Your task to perform on an android device: Is it going to rain this weekend? Image 0: 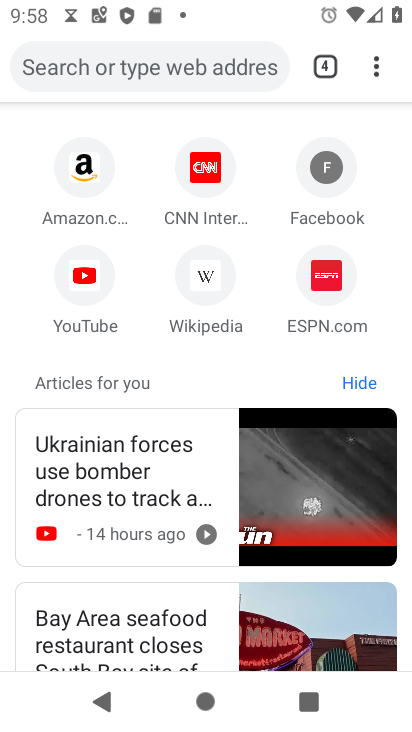
Step 0: press home button
Your task to perform on an android device: Is it going to rain this weekend? Image 1: 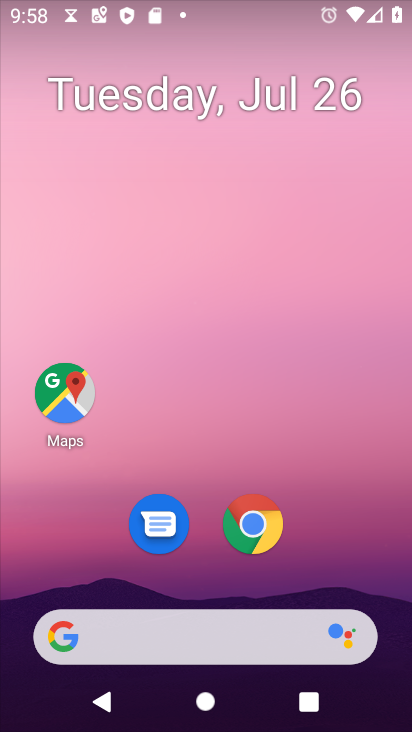
Step 1: click (164, 641)
Your task to perform on an android device: Is it going to rain this weekend? Image 2: 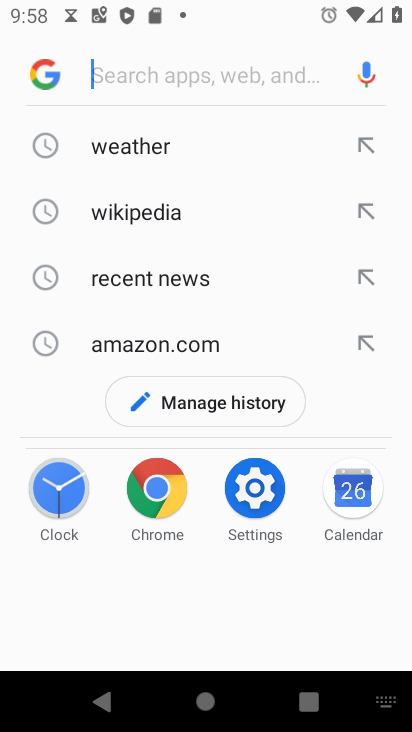
Step 2: click (155, 142)
Your task to perform on an android device: Is it going to rain this weekend? Image 3: 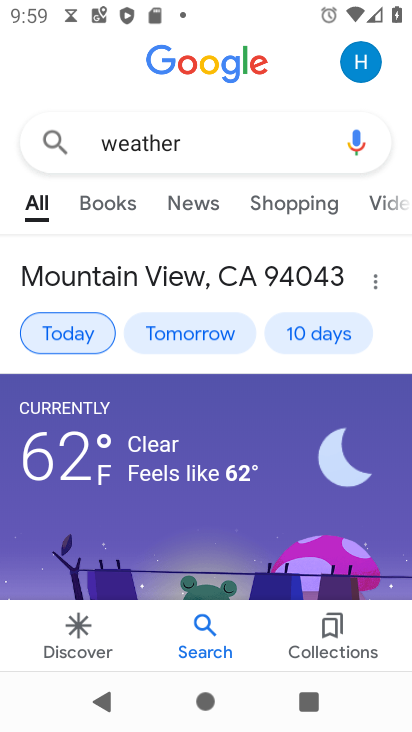
Step 3: click (320, 335)
Your task to perform on an android device: Is it going to rain this weekend? Image 4: 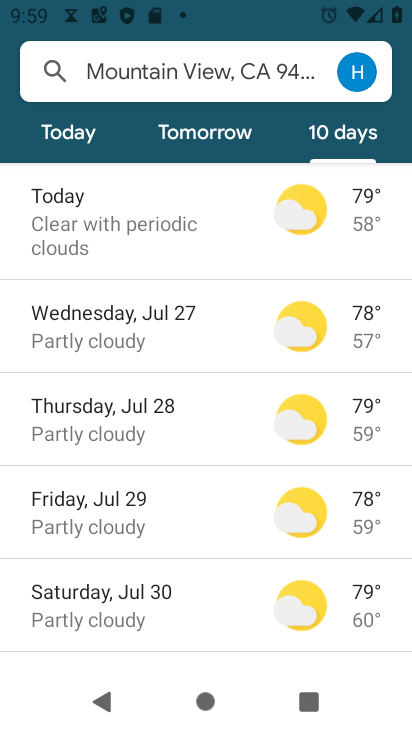
Step 4: drag from (143, 550) to (340, 175)
Your task to perform on an android device: Is it going to rain this weekend? Image 5: 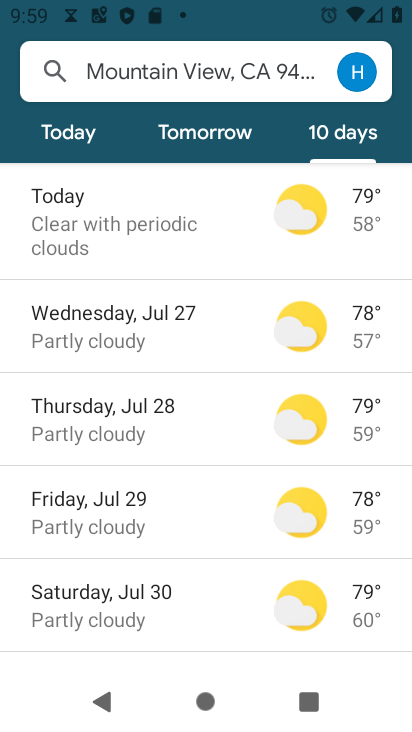
Step 5: drag from (238, 432) to (228, 181)
Your task to perform on an android device: Is it going to rain this weekend? Image 6: 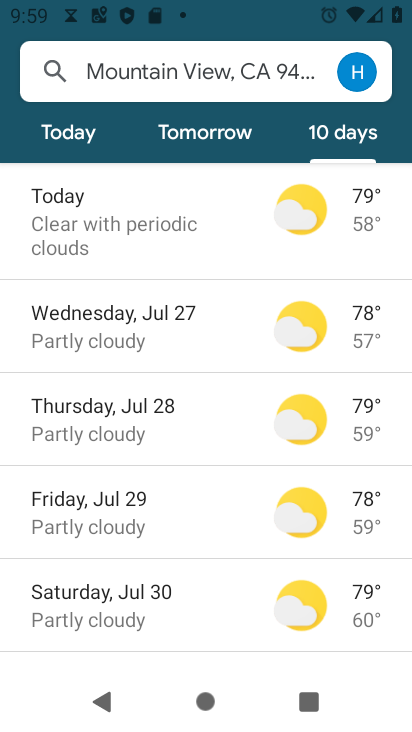
Step 6: click (126, 601)
Your task to perform on an android device: Is it going to rain this weekend? Image 7: 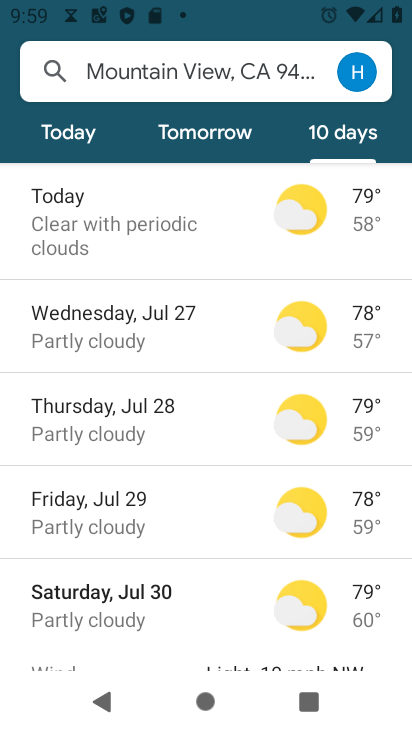
Step 7: task complete